Your task to perform on an android device: change timer sound Image 0: 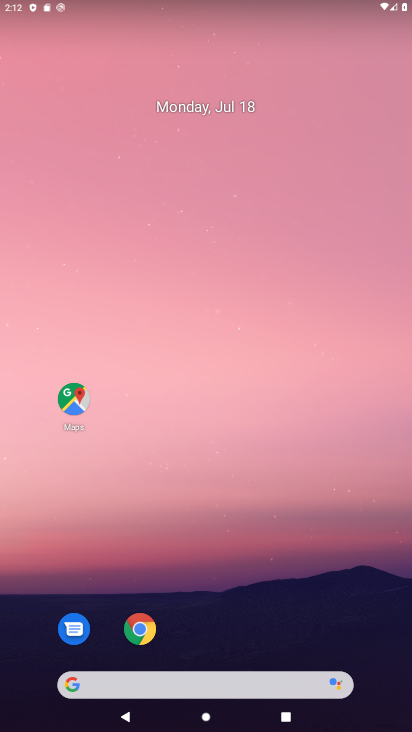
Step 0: drag from (203, 638) to (226, 225)
Your task to perform on an android device: change timer sound Image 1: 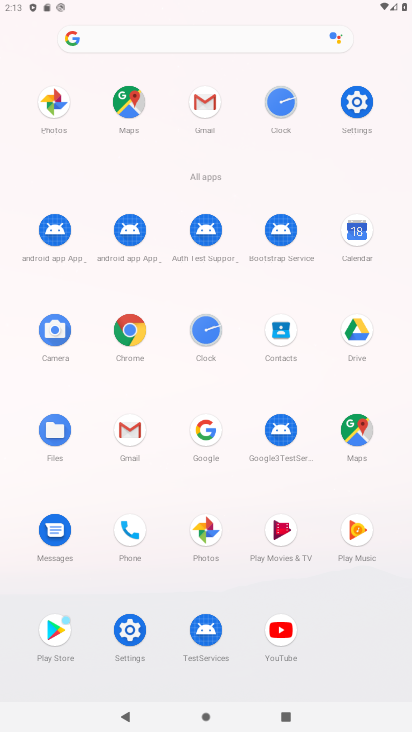
Step 1: click (206, 330)
Your task to perform on an android device: change timer sound Image 2: 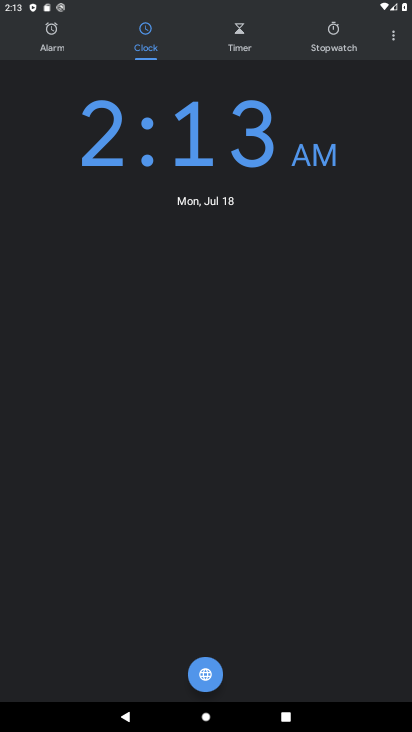
Step 2: click (389, 42)
Your task to perform on an android device: change timer sound Image 3: 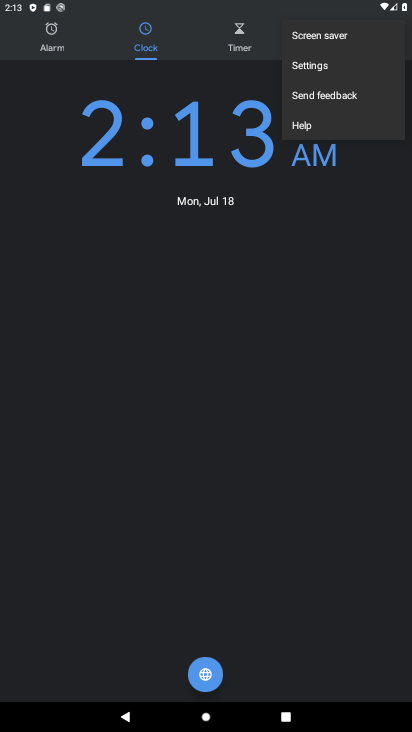
Step 3: click (308, 71)
Your task to perform on an android device: change timer sound Image 4: 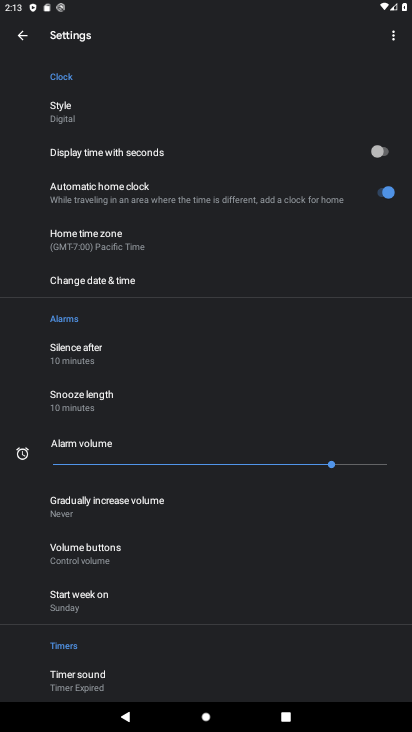
Step 4: click (71, 684)
Your task to perform on an android device: change timer sound Image 5: 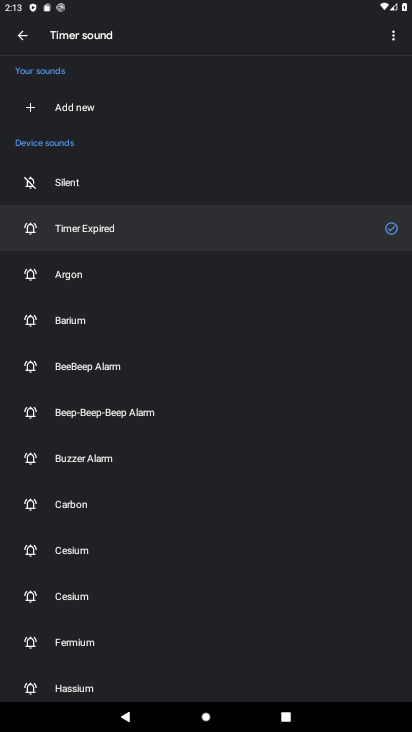
Step 5: click (77, 276)
Your task to perform on an android device: change timer sound Image 6: 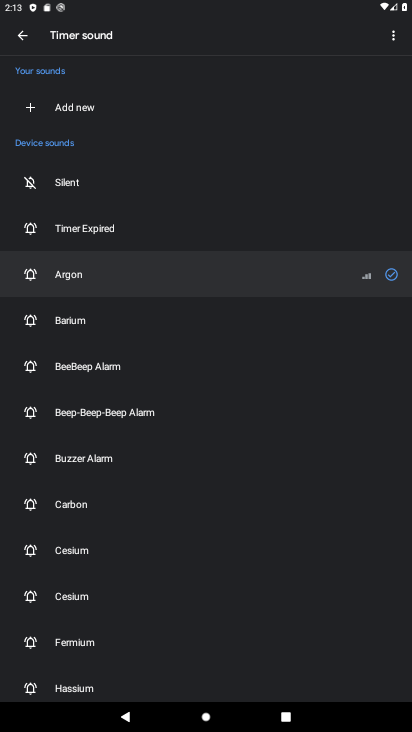
Step 6: task complete